Your task to perform on an android device: Open display settings Image 0: 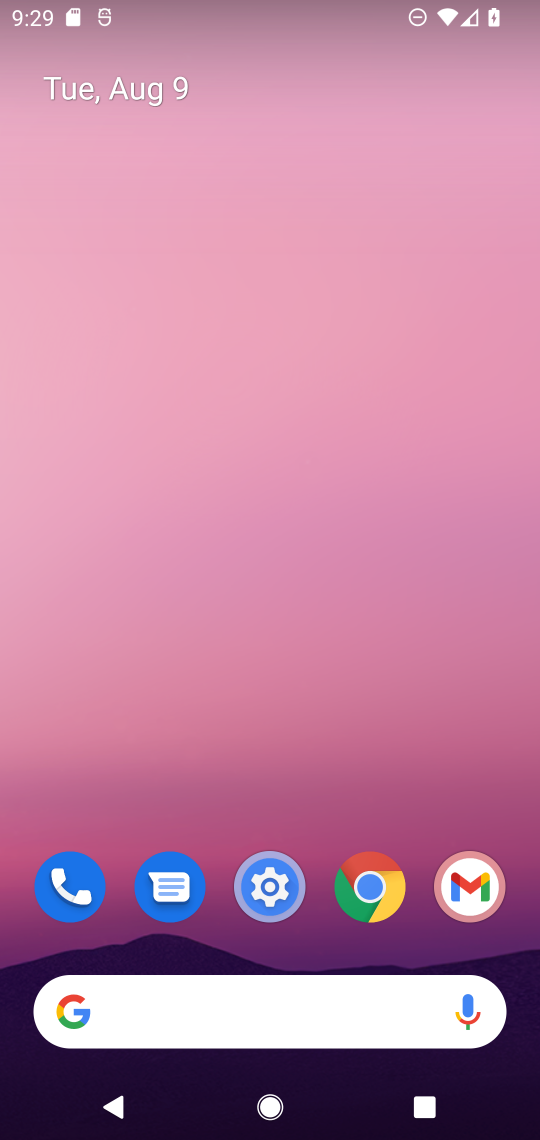
Step 0: click (257, 889)
Your task to perform on an android device: Open display settings Image 1: 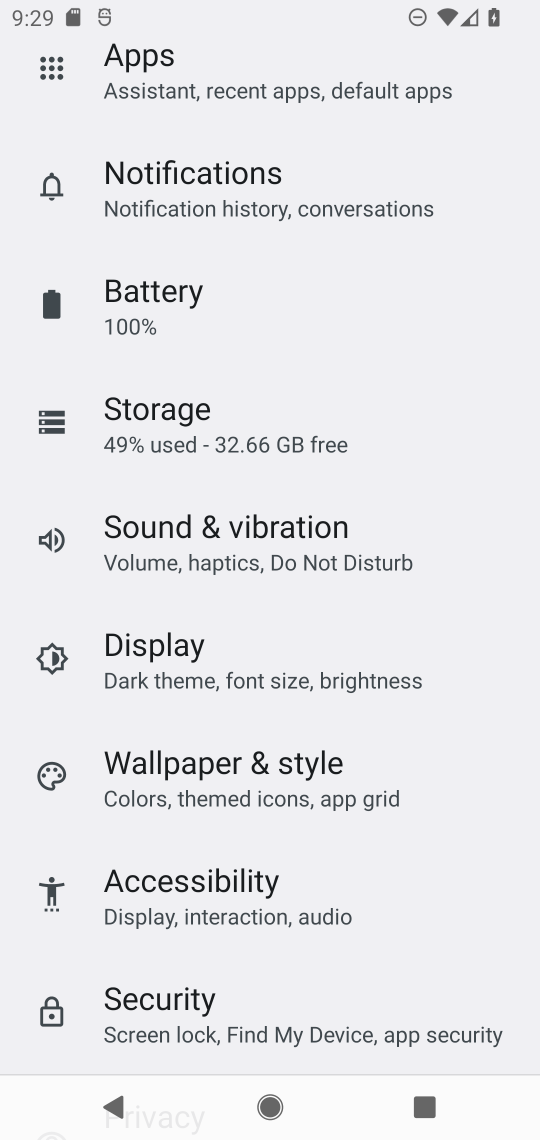
Step 1: click (231, 670)
Your task to perform on an android device: Open display settings Image 2: 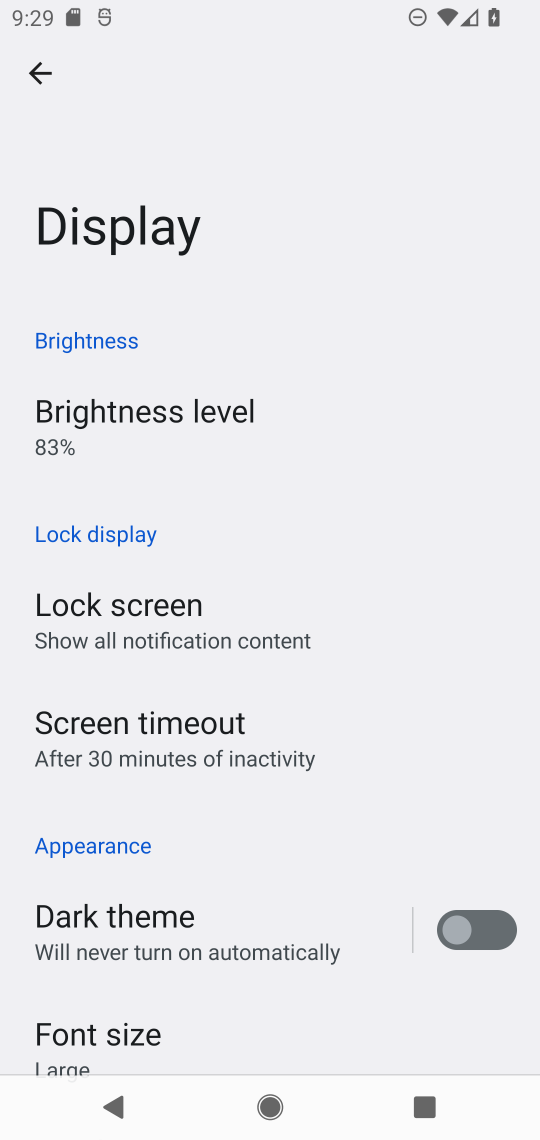
Step 2: task complete